Your task to perform on an android device: open app "ZOOM Cloud Meetings" Image 0: 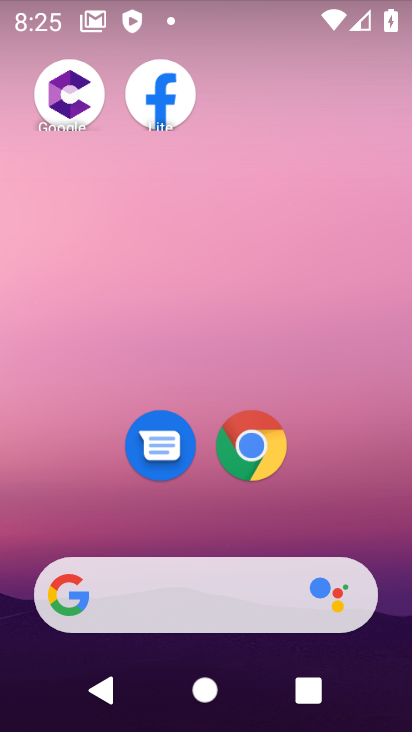
Step 0: drag from (230, 537) to (354, 541)
Your task to perform on an android device: open app "ZOOM Cloud Meetings" Image 1: 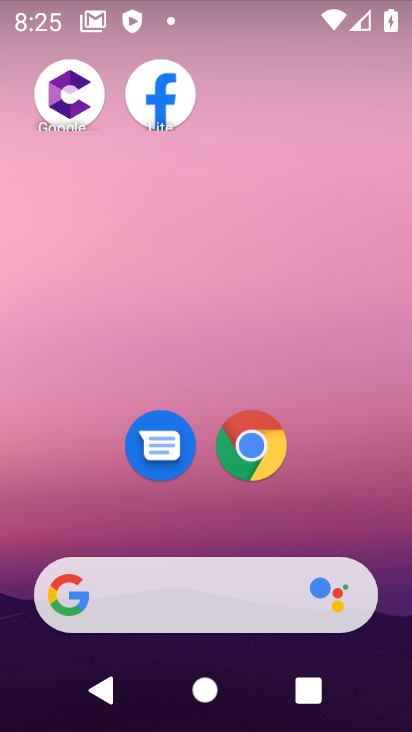
Step 1: drag from (226, 547) to (219, 34)
Your task to perform on an android device: open app "ZOOM Cloud Meetings" Image 2: 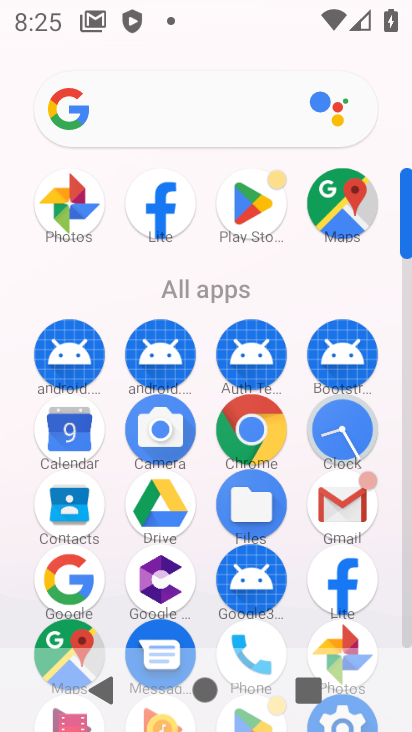
Step 2: drag from (206, 582) to (201, 117)
Your task to perform on an android device: open app "ZOOM Cloud Meetings" Image 3: 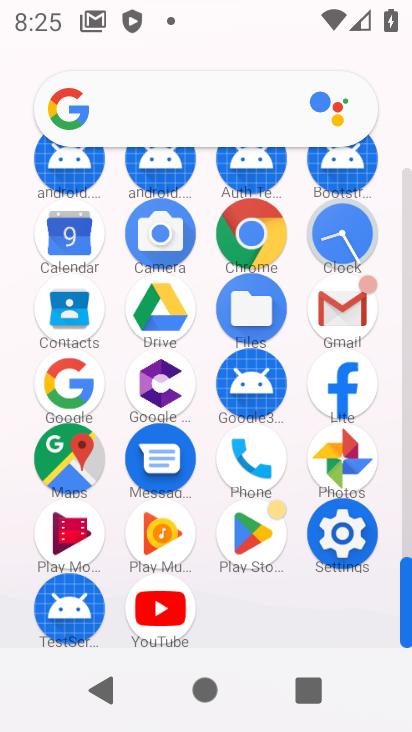
Step 3: click (258, 532)
Your task to perform on an android device: open app "ZOOM Cloud Meetings" Image 4: 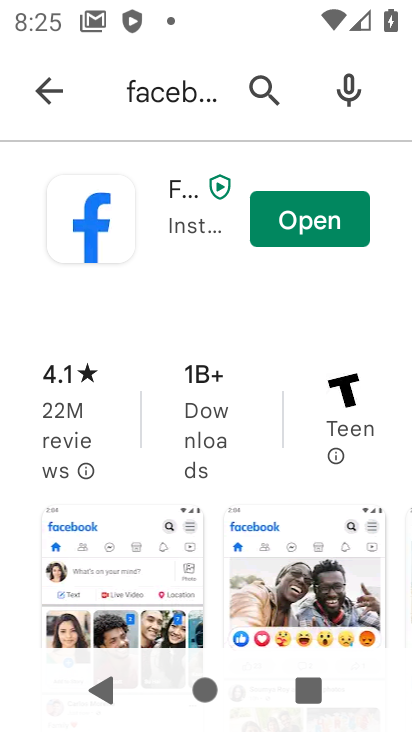
Step 4: click (45, 94)
Your task to perform on an android device: open app "ZOOM Cloud Meetings" Image 5: 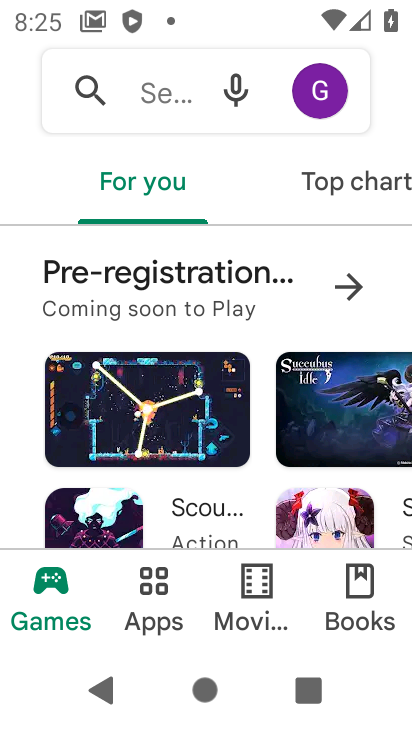
Step 5: click (130, 91)
Your task to perform on an android device: open app "ZOOM Cloud Meetings" Image 6: 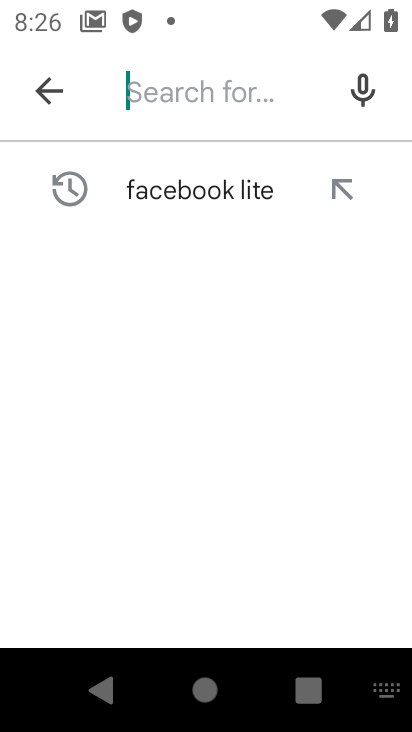
Step 6: type "ZOOM Cloud Meetings"
Your task to perform on an android device: open app "ZOOM Cloud Meetings" Image 7: 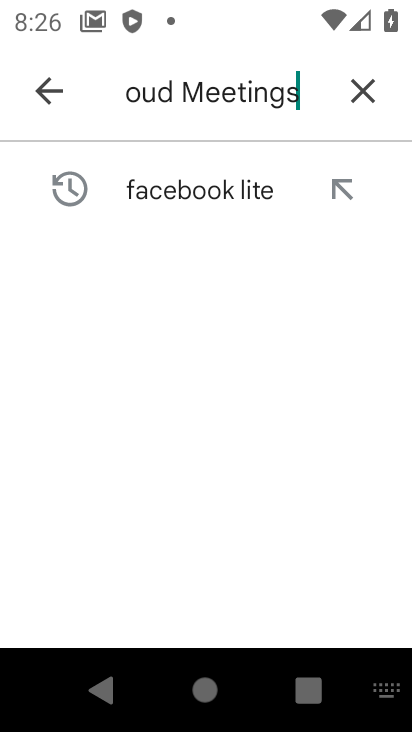
Step 7: type ""
Your task to perform on an android device: open app "ZOOM Cloud Meetings" Image 8: 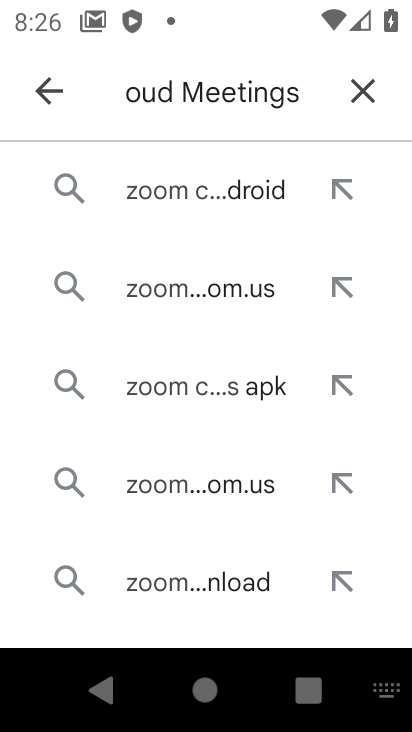
Step 8: click (249, 195)
Your task to perform on an android device: open app "ZOOM Cloud Meetings" Image 9: 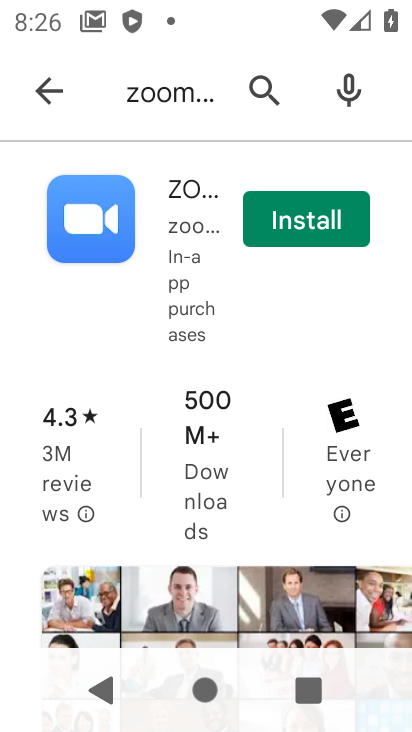
Step 9: click (133, 229)
Your task to perform on an android device: open app "ZOOM Cloud Meetings" Image 10: 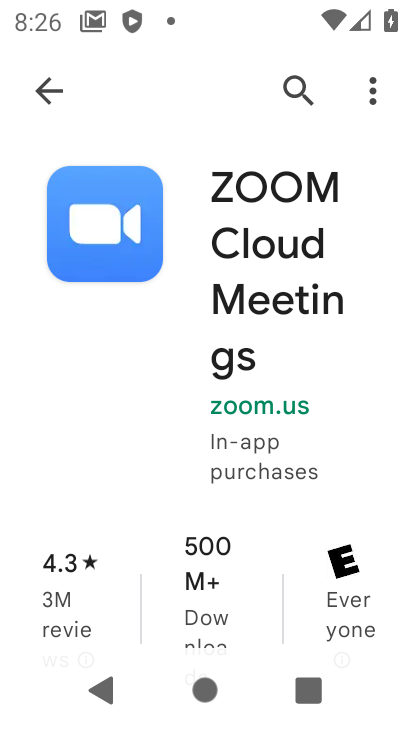
Step 10: task complete